Your task to perform on an android device: Go to calendar. Show me events next week Image 0: 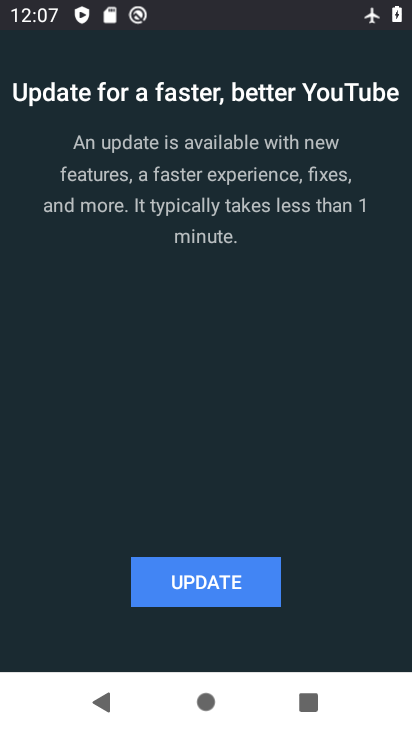
Step 0: press home button
Your task to perform on an android device: Go to calendar. Show me events next week Image 1: 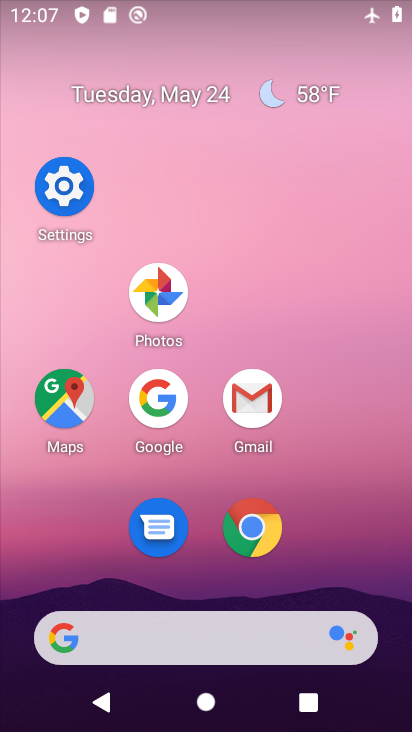
Step 1: drag from (336, 455) to (385, 4)
Your task to perform on an android device: Go to calendar. Show me events next week Image 2: 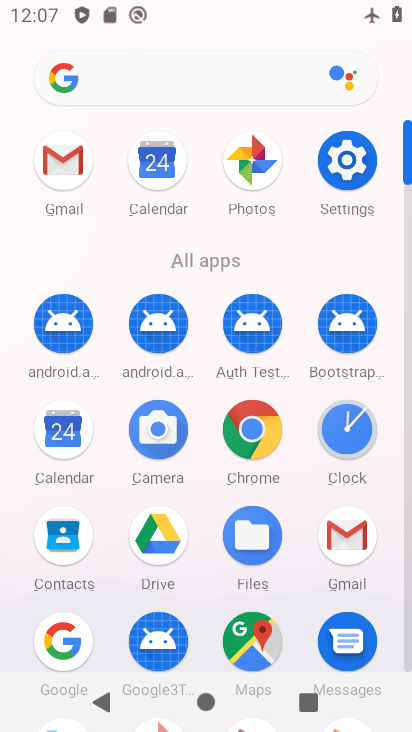
Step 2: drag from (155, 166) to (164, 203)
Your task to perform on an android device: Go to calendar. Show me events next week Image 3: 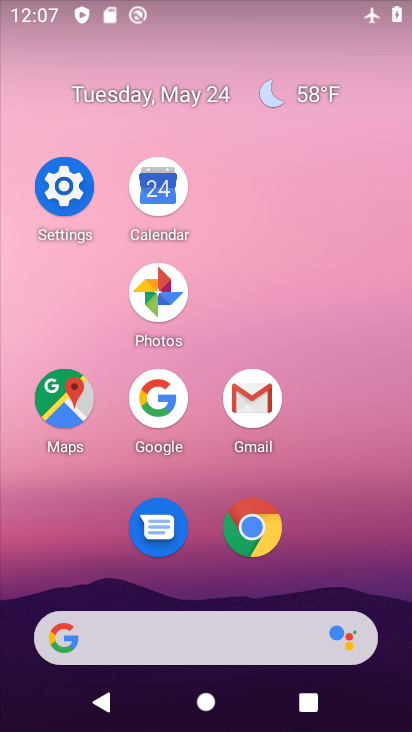
Step 3: click (164, 202)
Your task to perform on an android device: Go to calendar. Show me events next week Image 4: 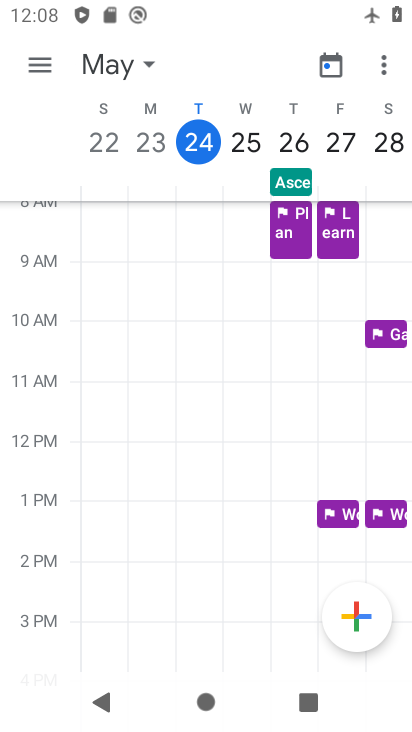
Step 4: task complete